Your task to perform on an android device: Search for Mexican restaurants on Maps Image 0: 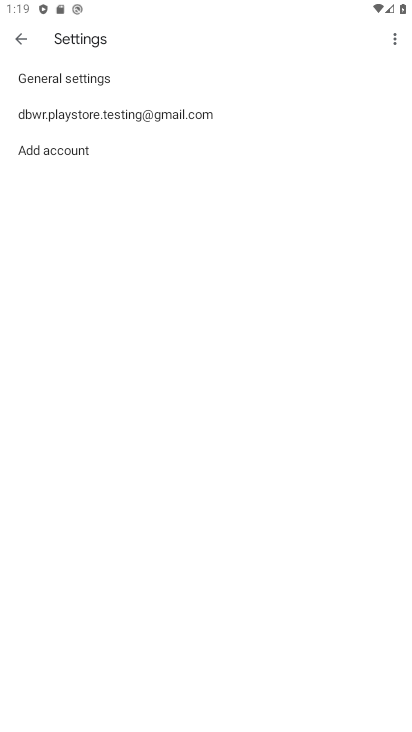
Step 0: press back button
Your task to perform on an android device: Search for Mexican restaurants on Maps Image 1: 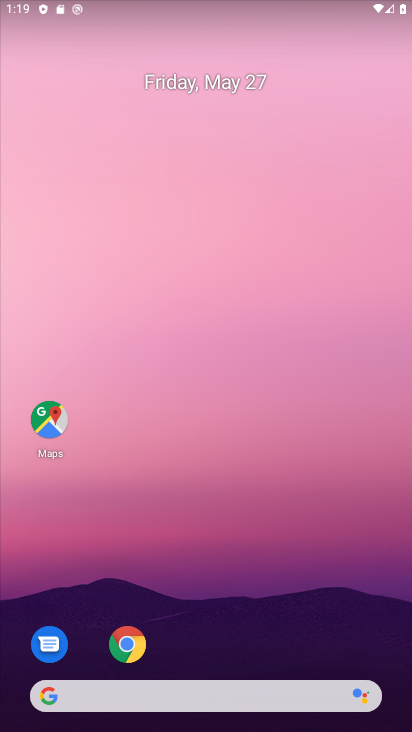
Step 1: drag from (263, 582) to (259, 0)
Your task to perform on an android device: Search for Mexican restaurants on Maps Image 2: 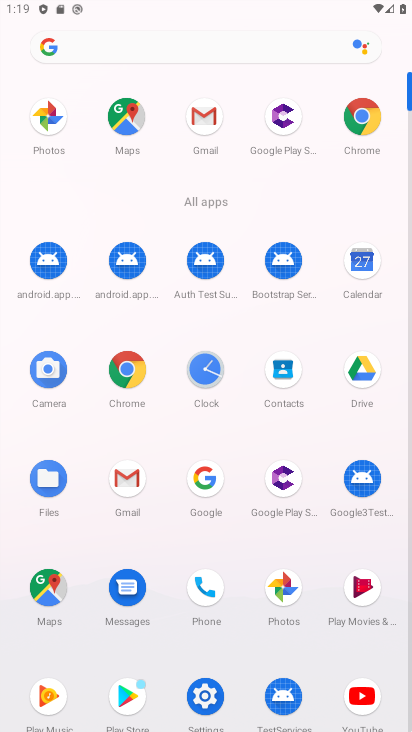
Step 2: click (124, 115)
Your task to perform on an android device: Search for Mexican restaurants on Maps Image 3: 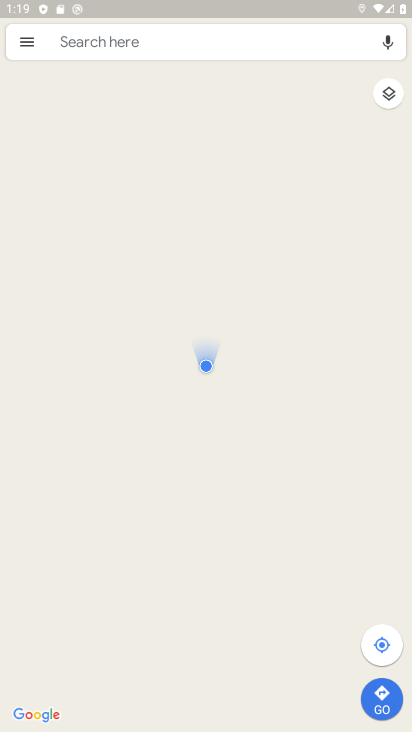
Step 3: click (183, 45)
Your task to perform on an android device: Search for Mexican restaurants on Maps Image 4: 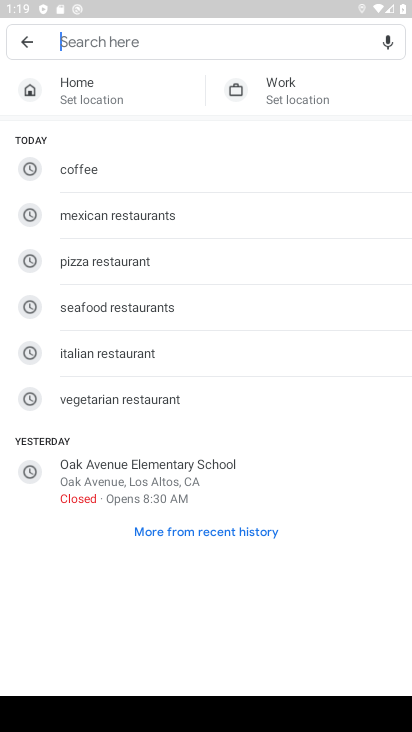
Step 4: click (145, 217)
Your task to perform on an android device: Search for Mexican restaurants on Maps Image 5: 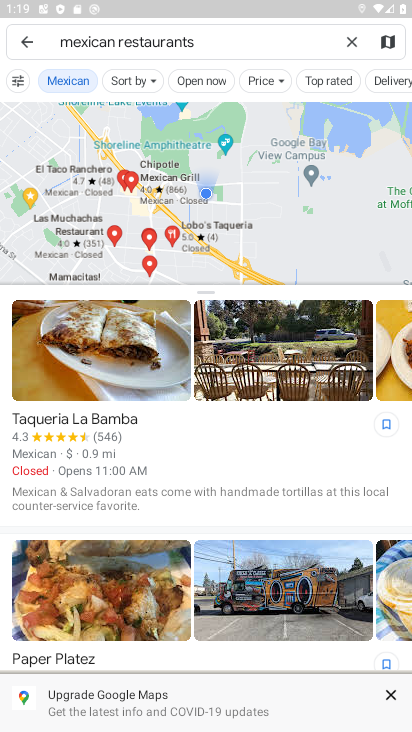
Step 5: task complete